Your task to perform on an android device: allow cookies in the chrome app Image 0: 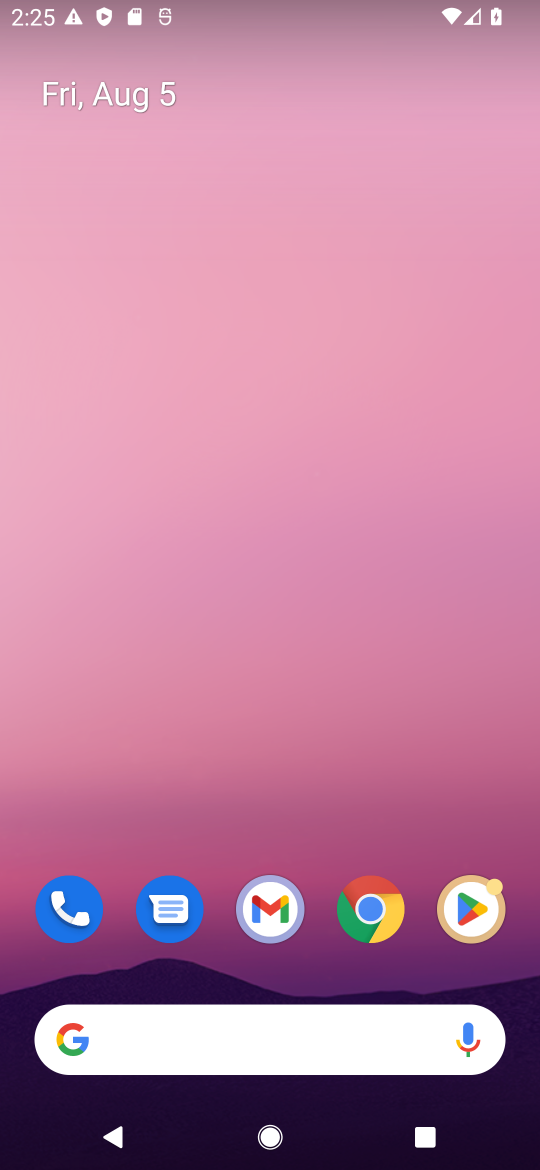
Step 0: drag from (362, 795) to (384, 282)
Your task to perform on an android device: allow cookies in the chrome app Image 1: 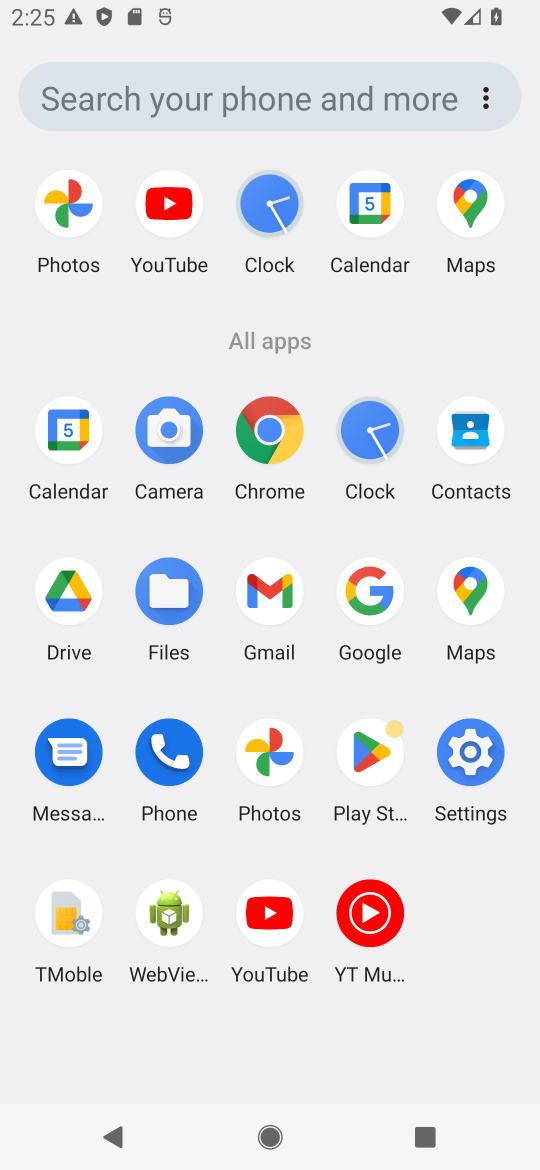
Step 1: click (246, 442)
Your task to perform on an android device: allow cookies in the chrome app Image 2: 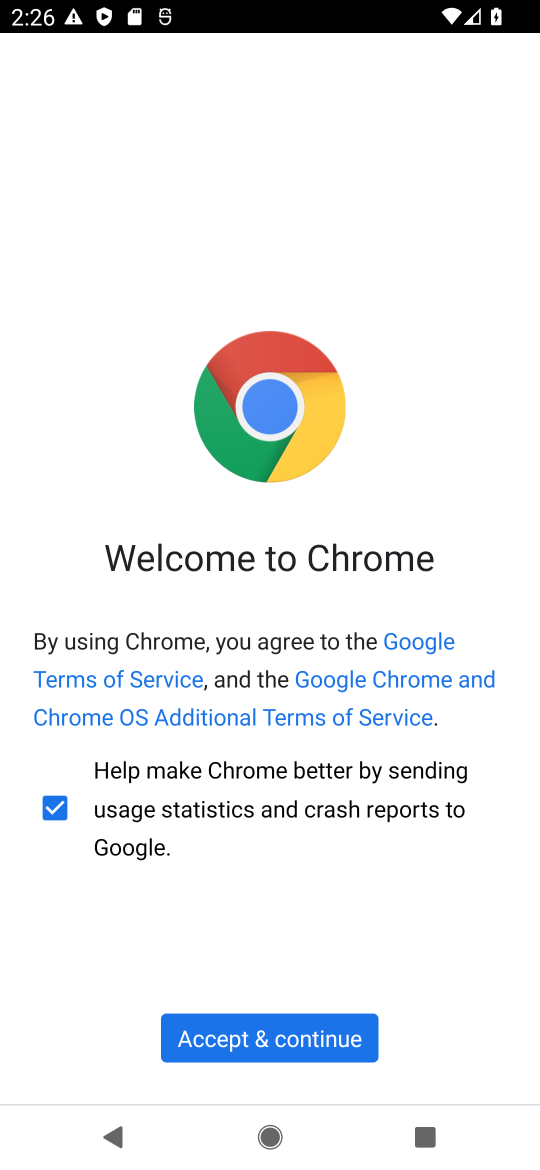
Step 2: click (263, 1045)
Your task to perform on an android device: allow cookies in the chrome app Image 3: 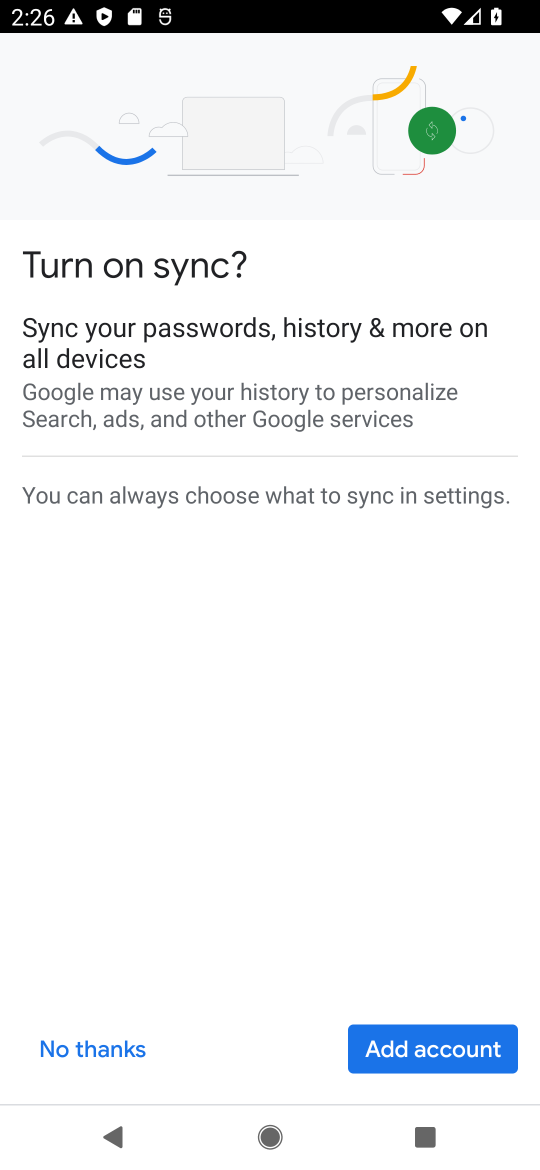
Step 3: click (99, 1045)
Your task to perform on an android device: allow cookies in the chrome app Image 4: 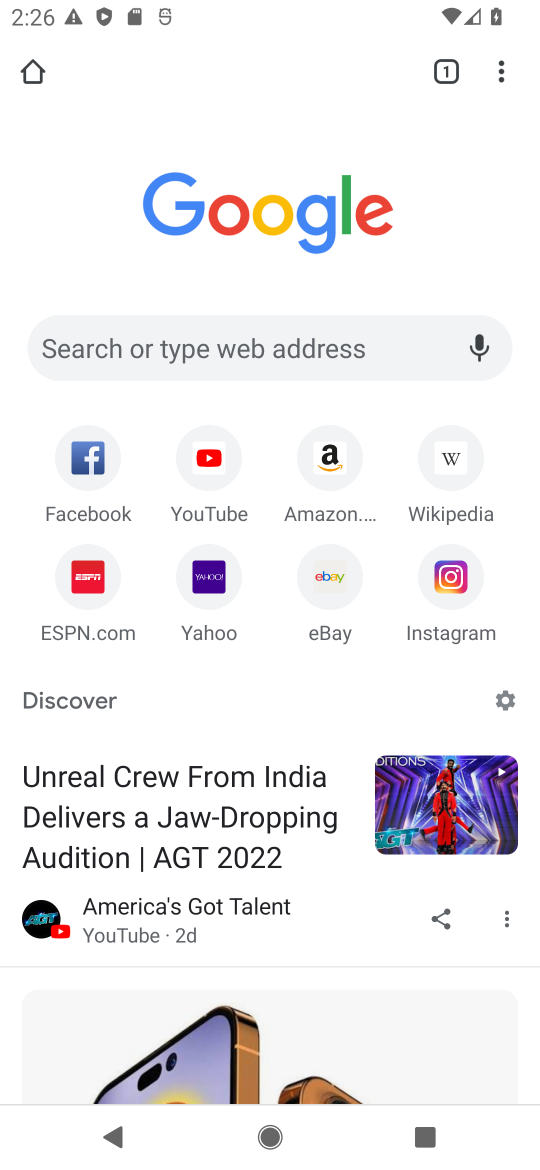
Step 4: click (502, 76)
Your task to perform on an android device: allow cookies in the chrome app Image 5: 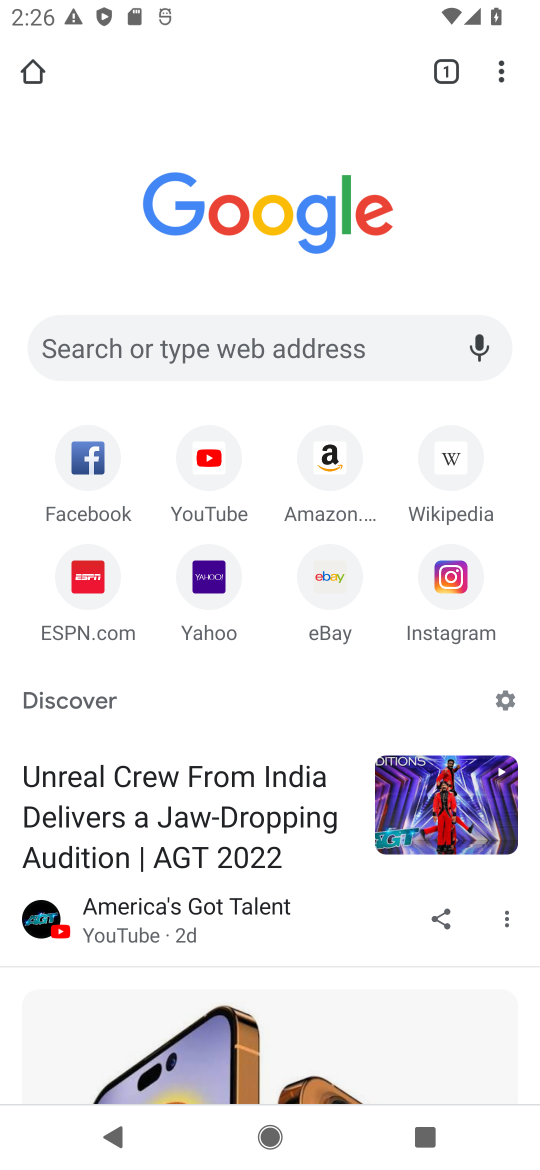
Step 5: click (498, 71)
Your task to perform on an android device: allow cookies in the chrome app Image 6: 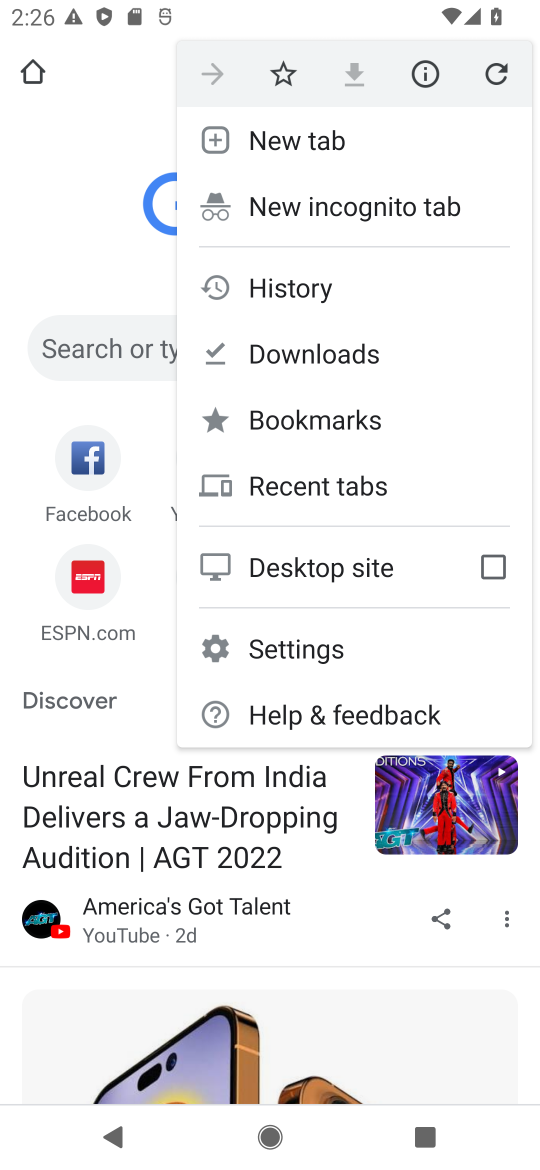
Step 6: click (375, 656)
Your task to perform on an android device: allow cookies in the chrome app Image 7: 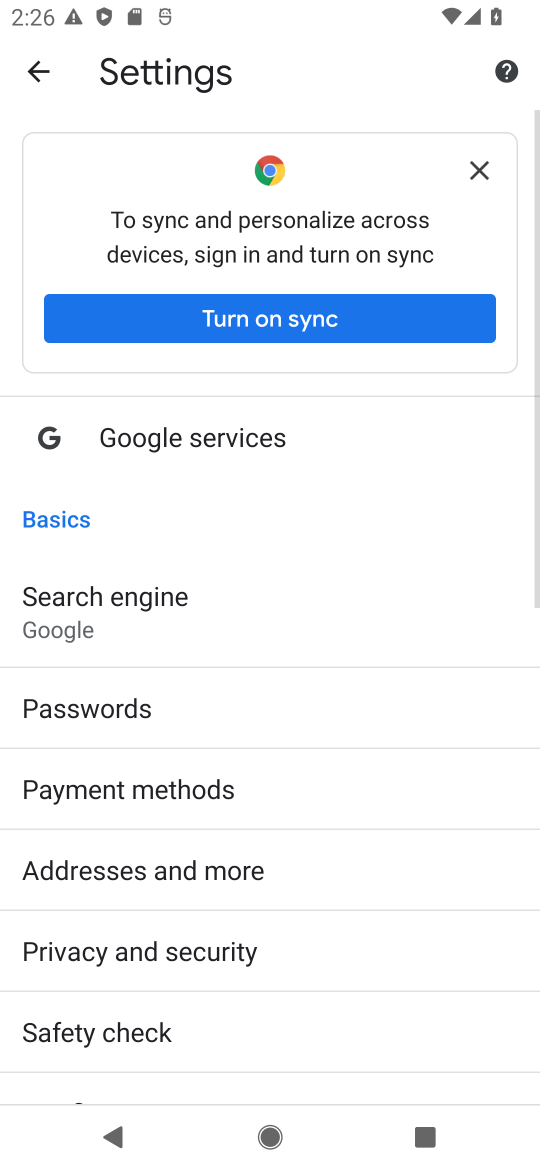
Step 7: drag from (396, 728) to (398, 601)
Your task to perform on an android device: allow cookies in the chrome app Image 8: 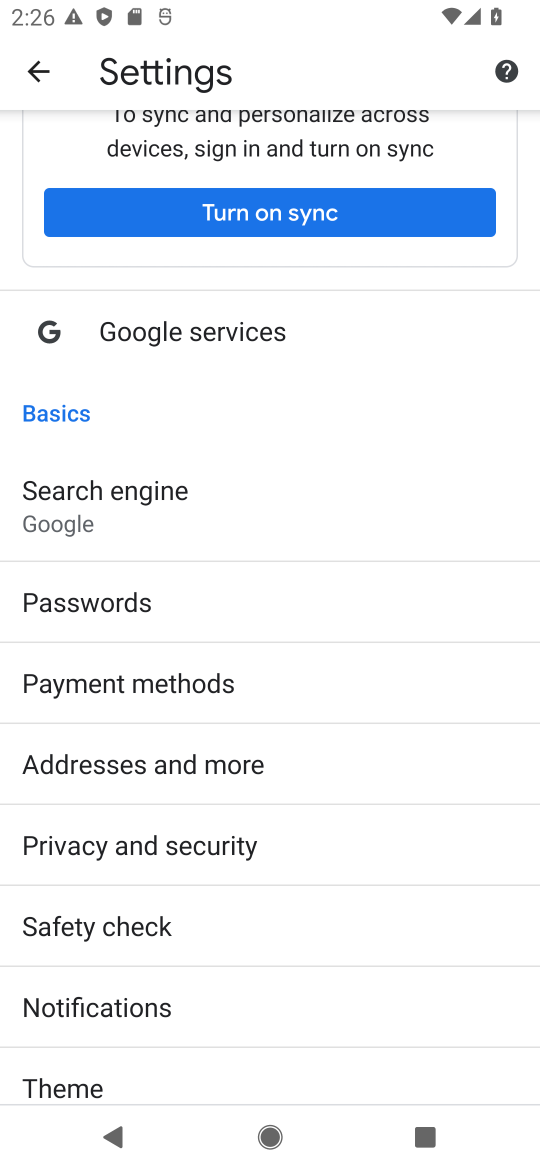
Step 8: drag from (435, 721) to (431, 594)
Your task to perform on an android device: allow cookies in the chrome app Image 9: 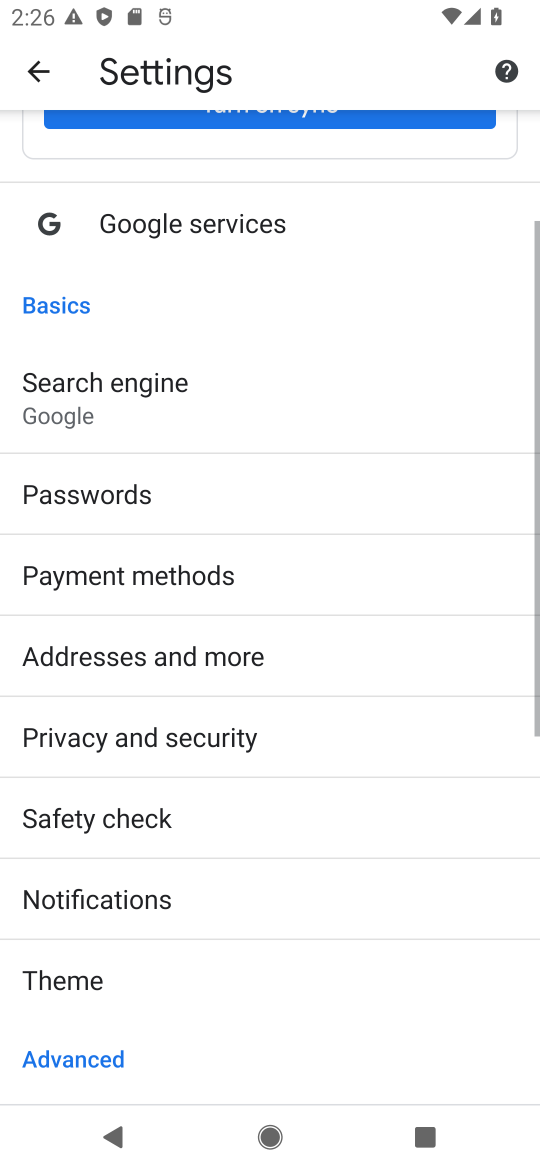
Step 9: drag from (431, 695) to (431, 564)
Your task to perform on an android device: allow cookies in the chrome app Image 10: 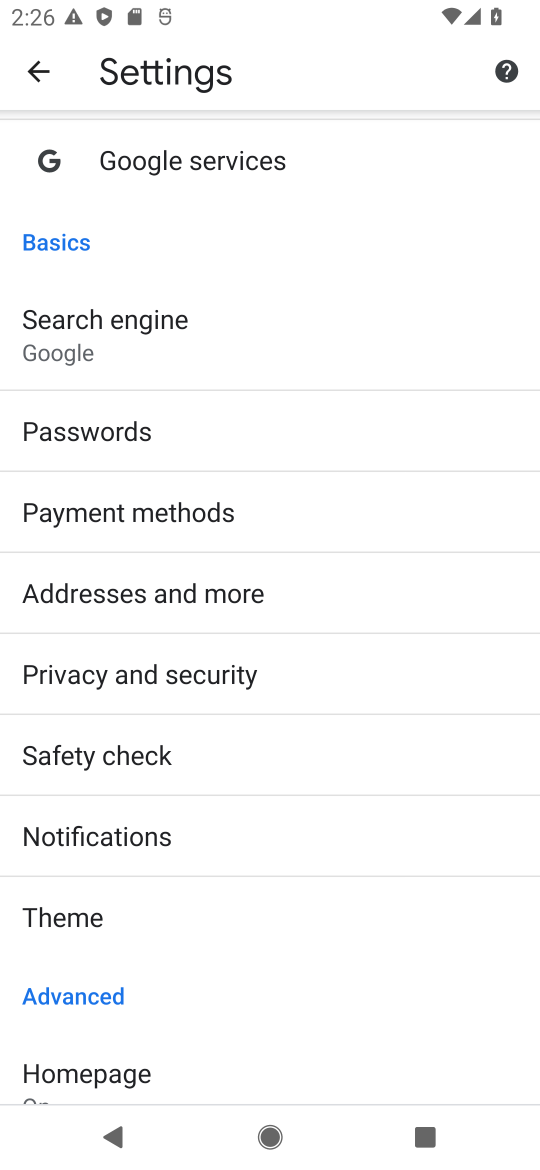
Step 10: drag from (422, 722) to (419, 588)
Your task to perform on an android device: allow cookies in the chrome app Image 11: 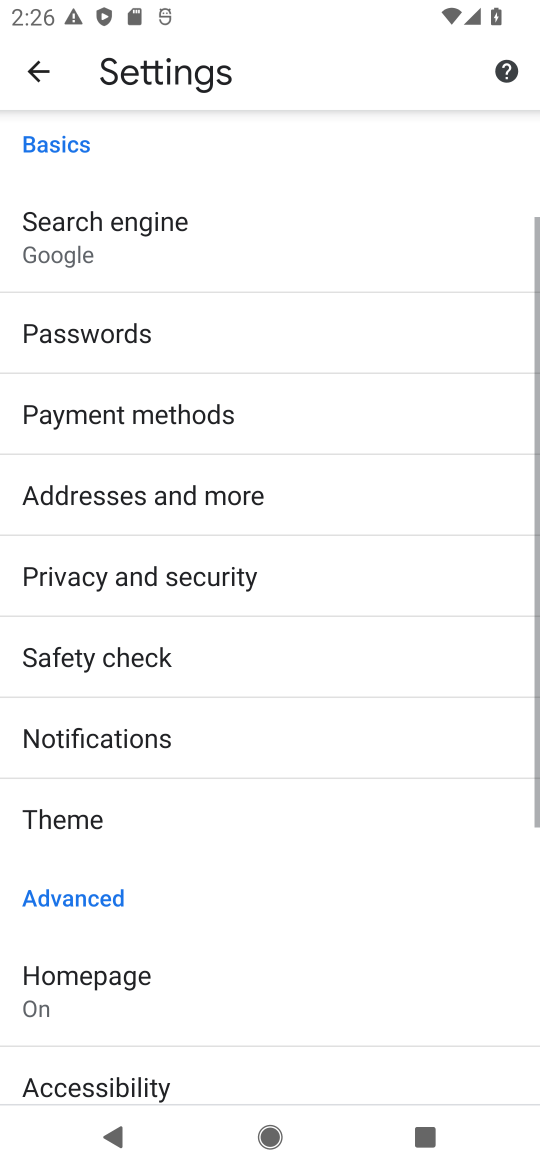
Step 11: drag from (401, 755) to (397, 610)
Your task to perform on an android device: allow cookies in the chrome app Image 12: 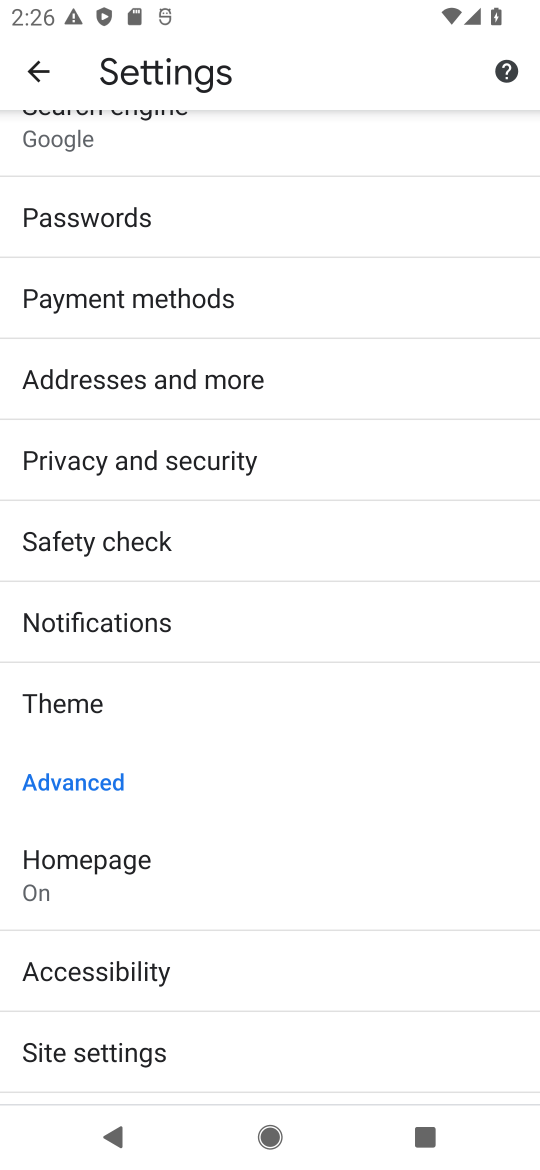
Step 12: drag from (389, 720) to (392, 578)
Your task to perform on an android device: allow cookies in the chrome app Image 13: 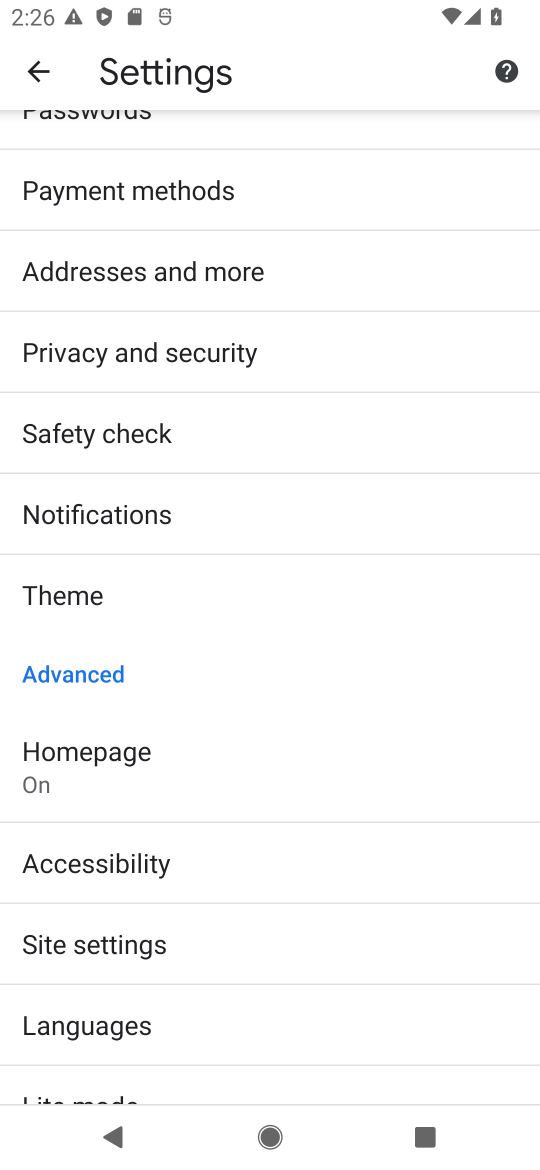
Step 13: drag from (394, 728) to (385, 508)
Your task to perform on an android device: allow cookies in the chrome app Image 14: 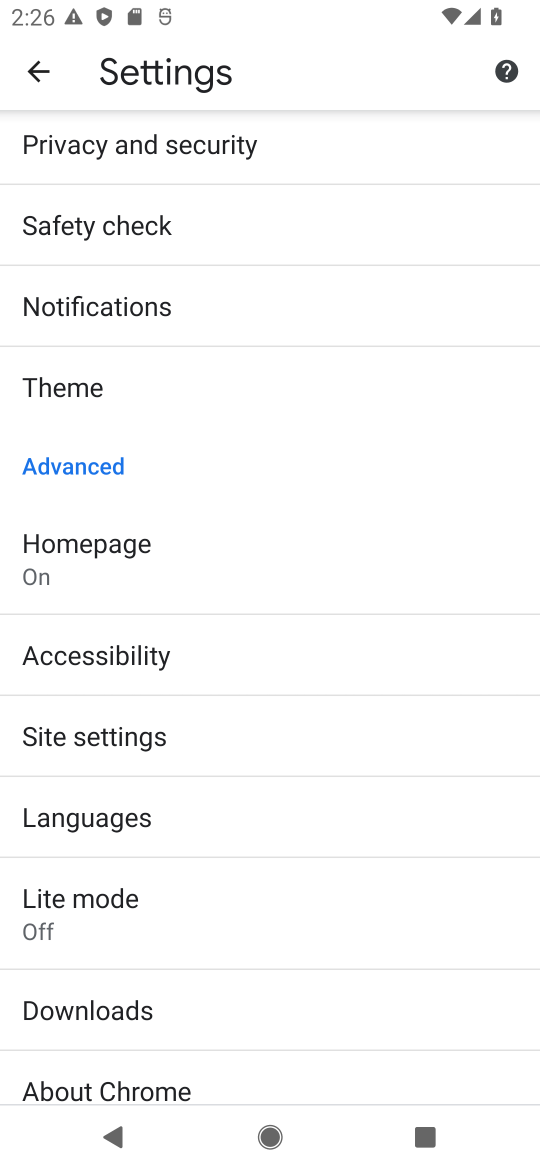
Step 14: drag from (389, 745) to (385, 556)
Your task to perform on an android device: allow cookies in the chrome app Image 15: 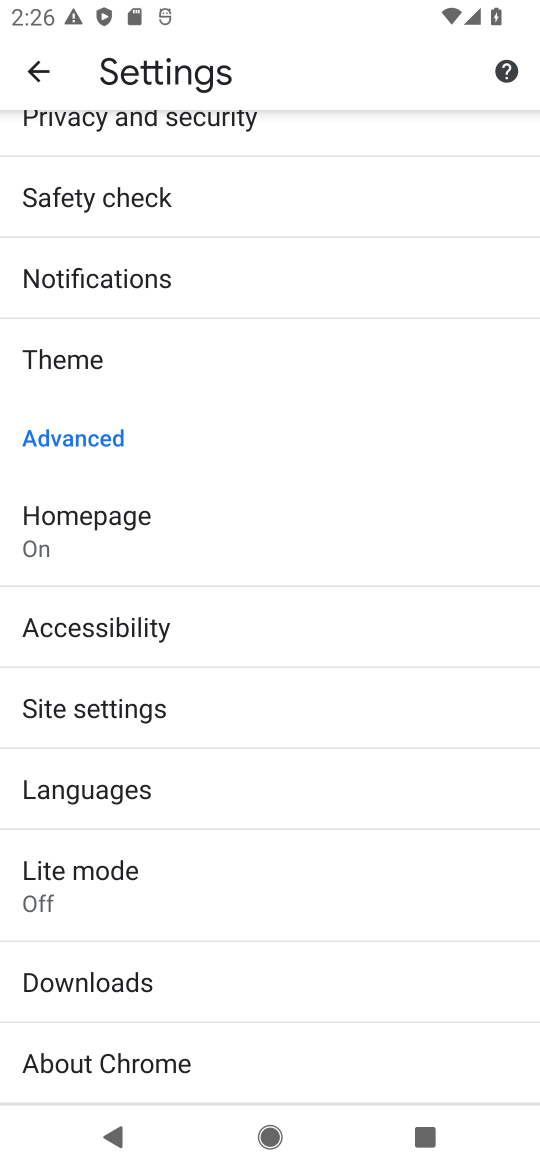
Step 15: click (363, 707)
Your task to perform on an android device: allow cookies in the chrome app Image 16: 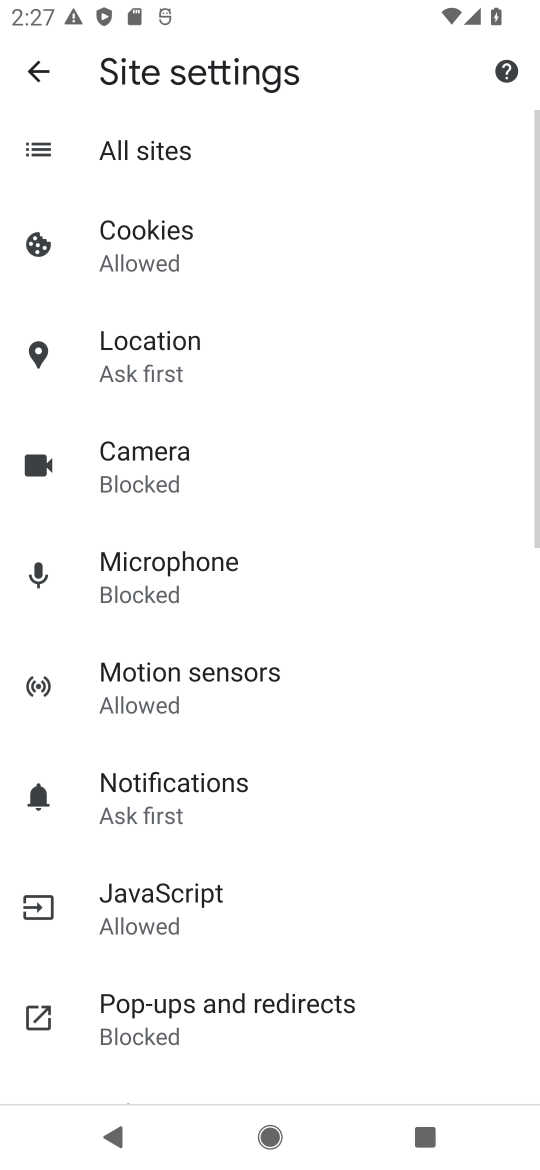
Step 16: drag from (399, 736) to (400, 555)
Your task to perform on an android device: allow cookies in the chrome app Image 17: 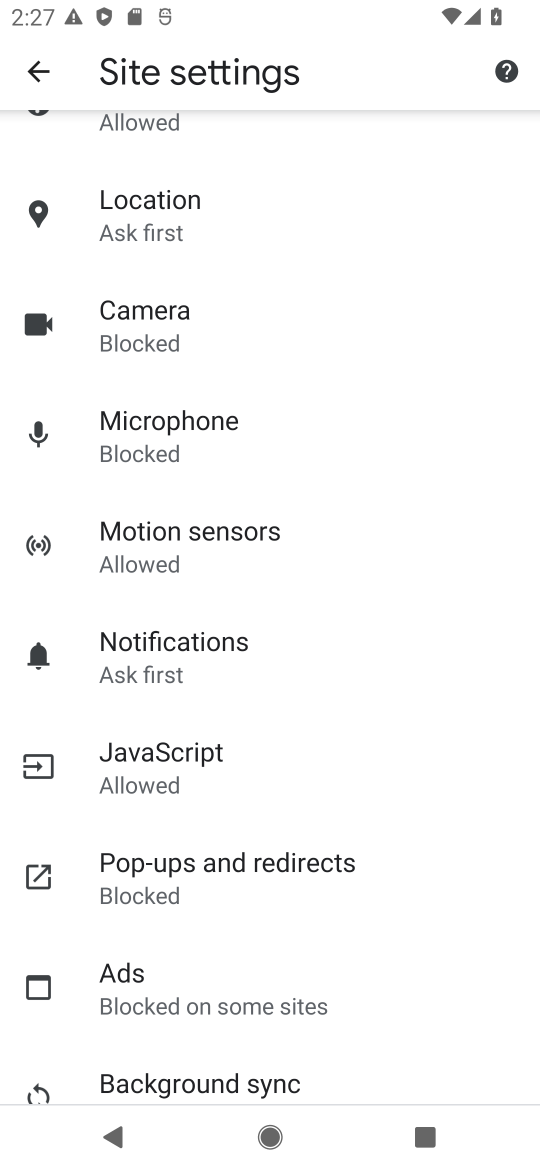
Step 17: drag from (434, 769) to (418, 572)
Your task to perform on an android device: allow cookies in the chrome app Image 18: 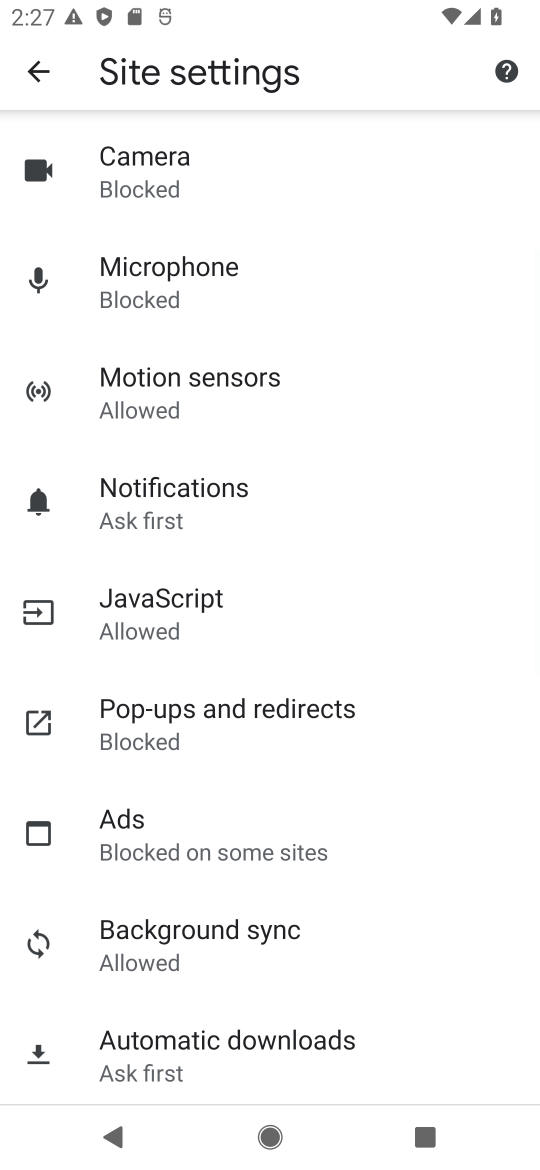
Step 18: drag from (423, 801) to (419, 642)
Your task to perform on an android device: allow cookies in the chrome app Image 19: 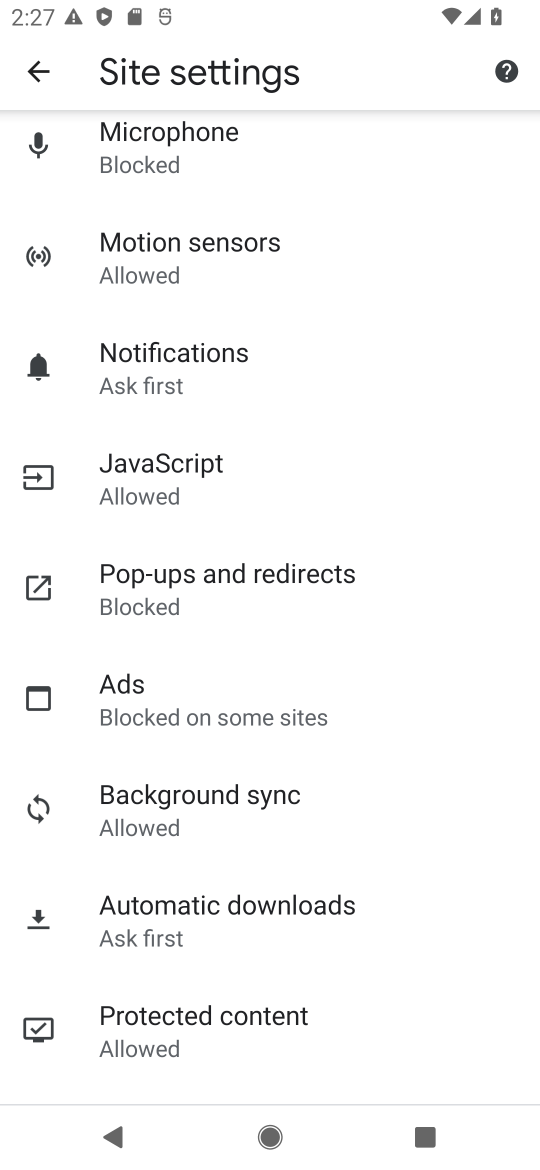
Step 19: drag from (439, 393) to (455, 592)
Your task to perform on an android device: allow cookies in the chrome app Image 20: 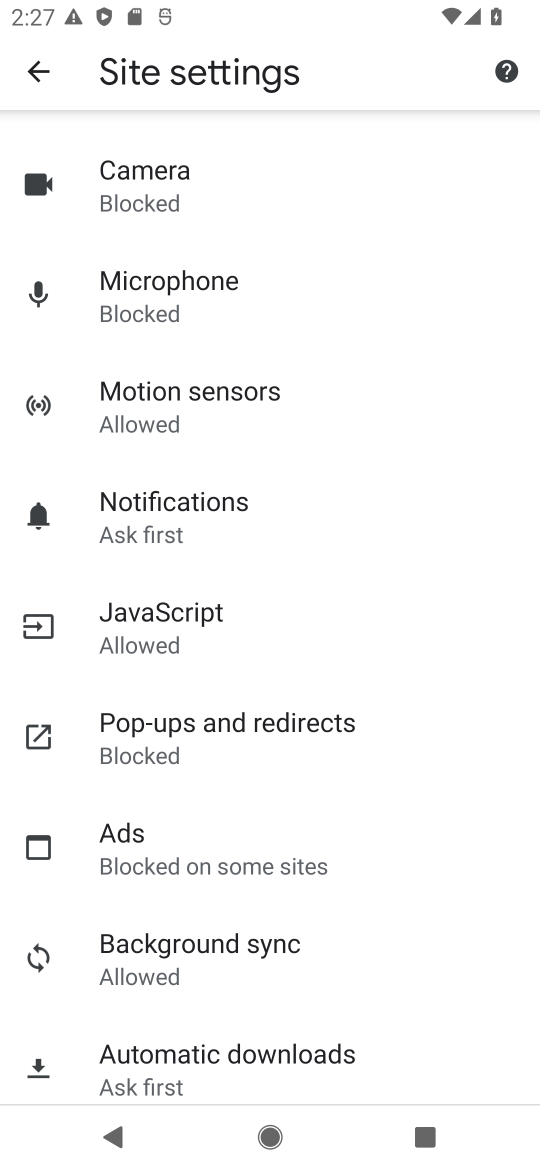
Step 20: drag from (463, 361) to (448, 576)
Your task to perform on an android device: allow cookies in the chrome app Image 21: 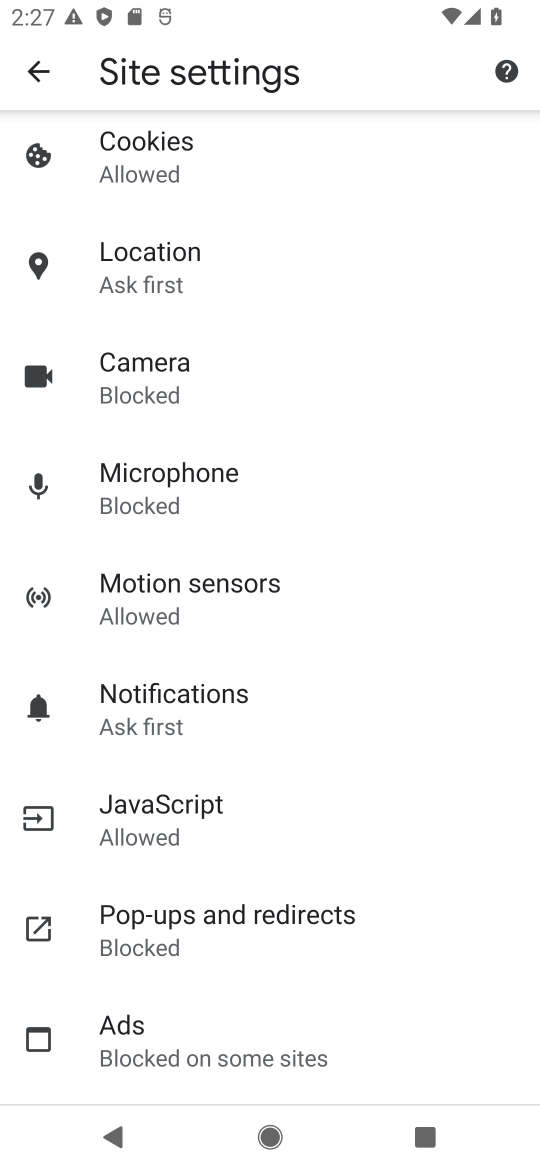
Step 21: drag from (448, 350) to (444, 562)
Your task to perform on an android device: allow cookies in the chrome app Image 22: 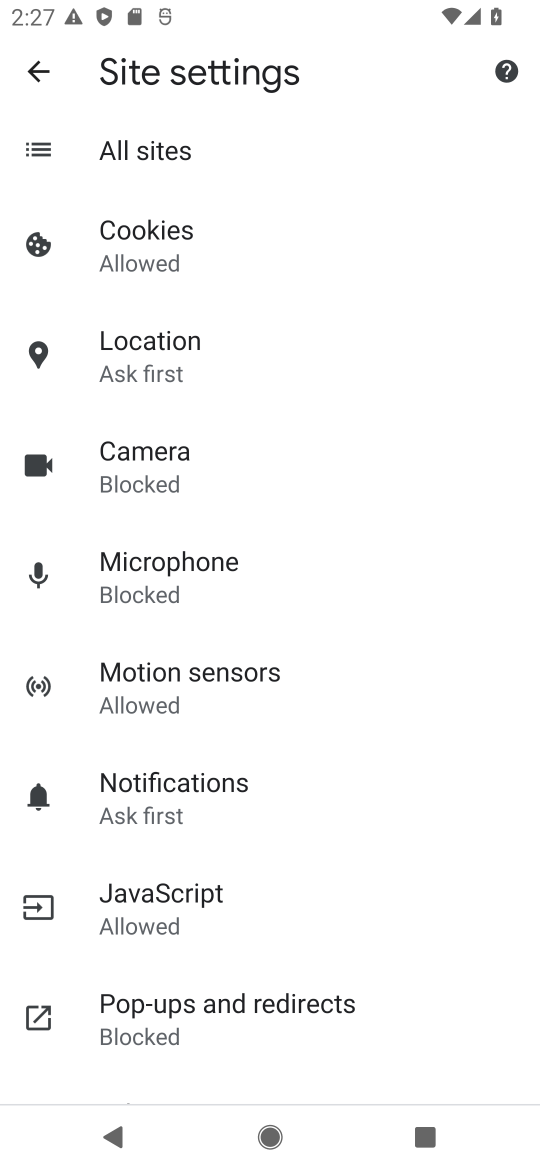
Step 22: click (205, 232)
Your task to perform on an android device: allow cookies in the chrome app Image 23: 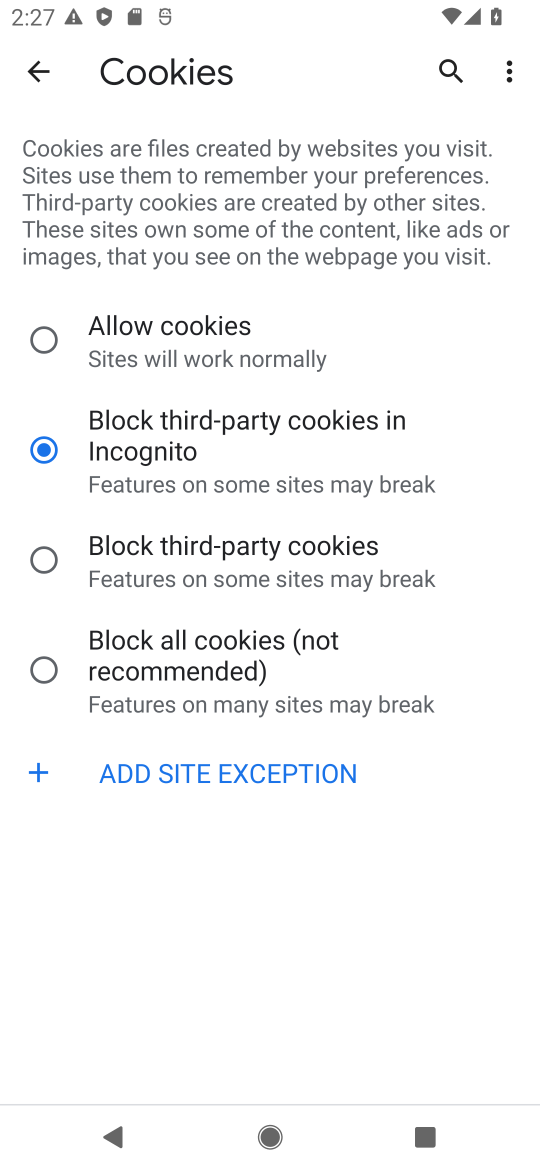
Step 23: click (184, 336)
Your task to perform on an android device: allow cookies in the chrome app Image 24: 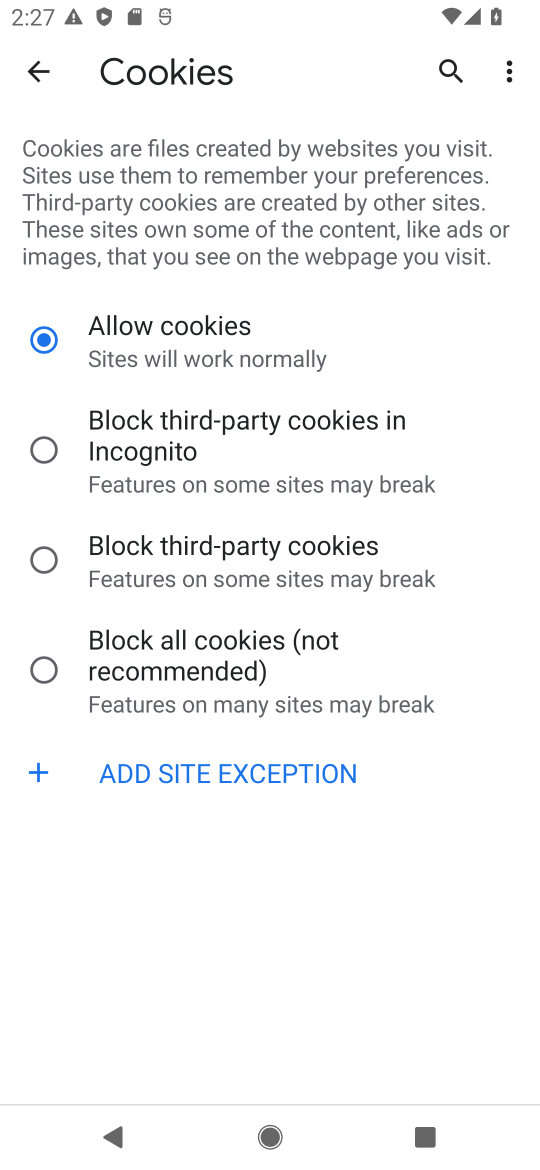
Step 24: task complete